Your task to perform on an android device: check android version Image 0: 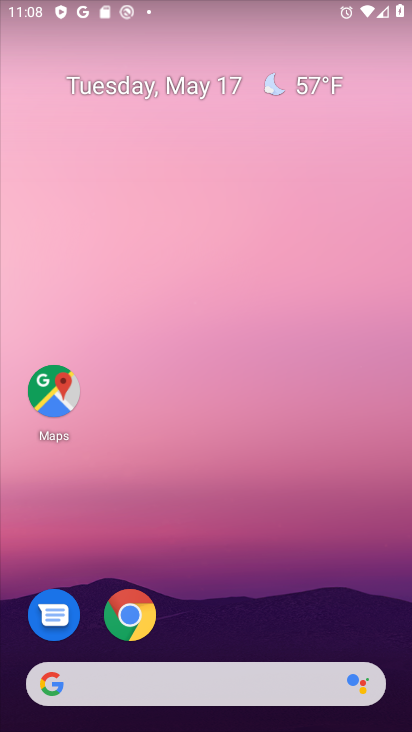
Step 0: drag from (297, 615) to (310, 166)
Your task to perform on an android device: check android version Image 1: 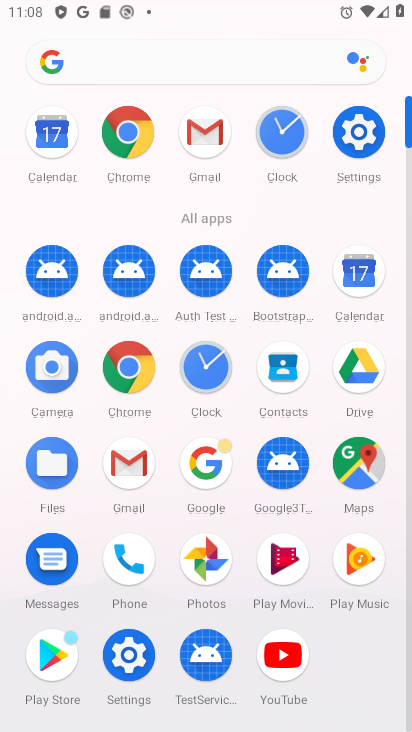
Step 1: click (363, 144)
Your task to perform on an android device: check android version Image 2: 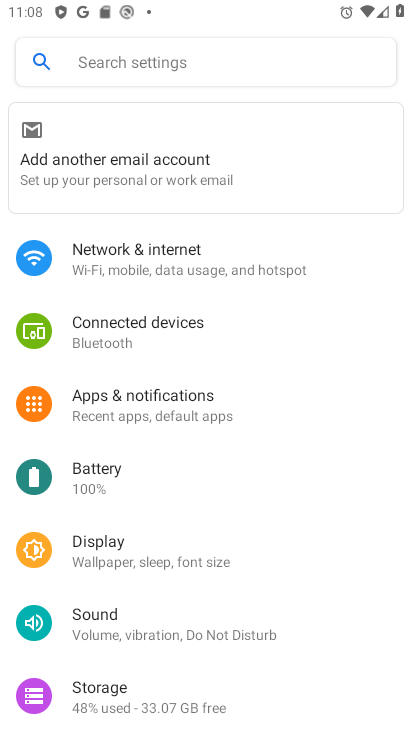
Step 2: drag from (245, 624) to (320, 94)
Your task to perform on an android device: check android version Image 3: 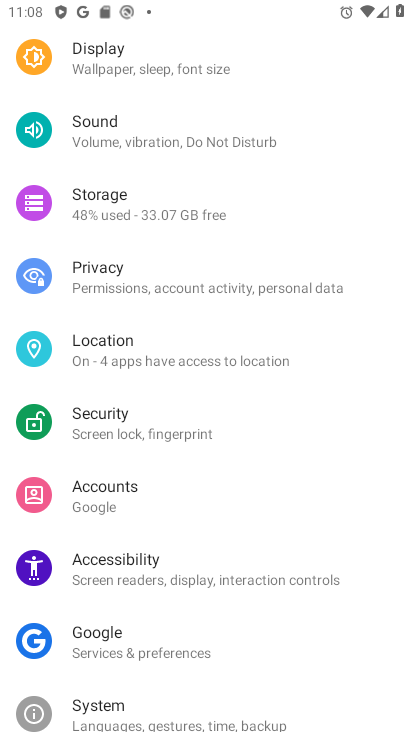
Step 3: drag from (257, 589) to (309, 165)
Your task to perform on an android device: check android version Image 4: 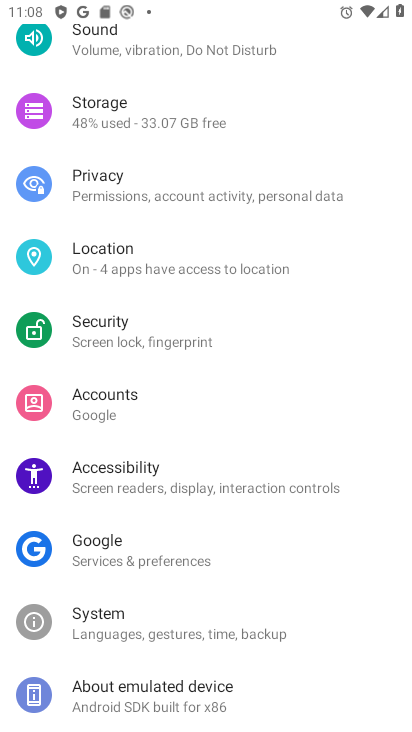
Step 4: click (184, 699)
Your task to perform on an android device: check android version Image 5: 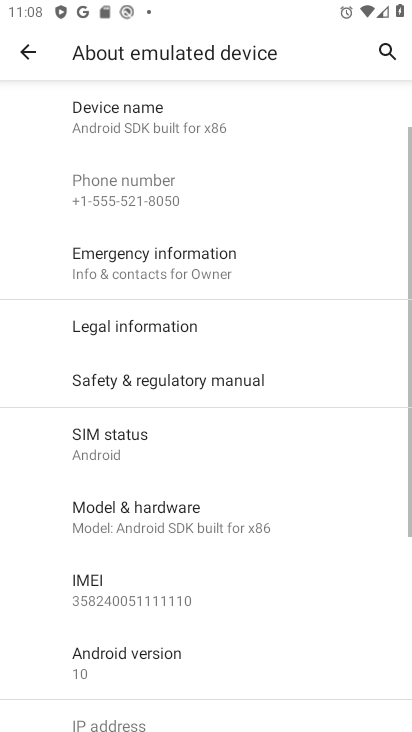
Step 5: drag from (186, 657) to (229, 330)
Your task to perform on an android device: check android version Image 6: 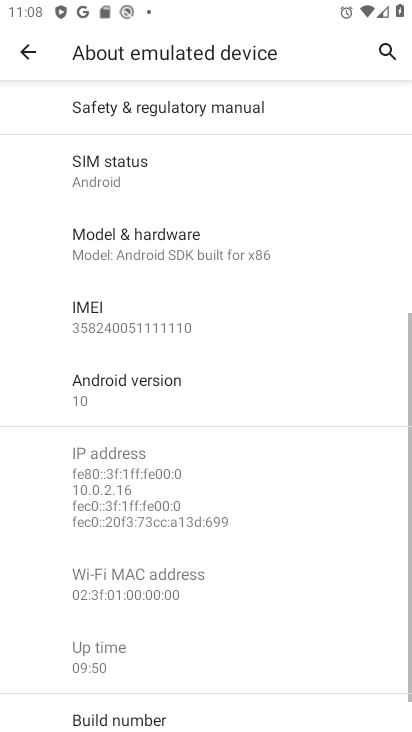
Step 6: click (141, 400)
Your task to perform on an android device: check android version Image 7: 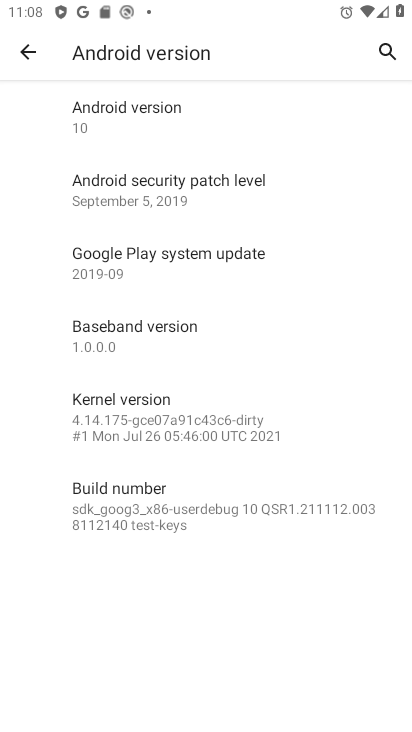
Step 7: task complete